Your task to perform on an android device: open chrome and create a bookmark for the current page Image 0: 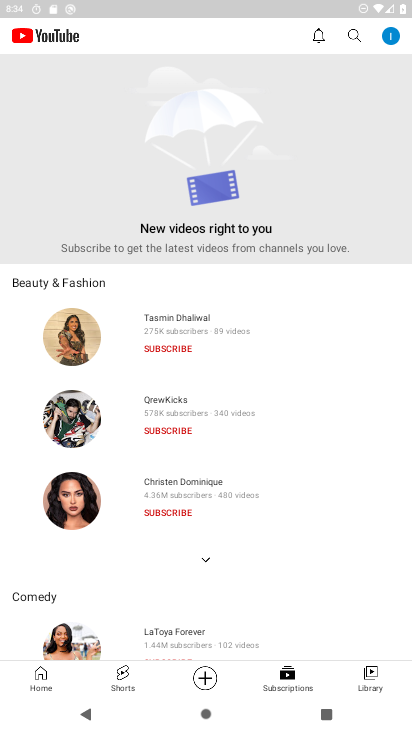
Step 0: press home button
Your task to perform on an android device: open chrome and create a bookmark for the current page Image 1: 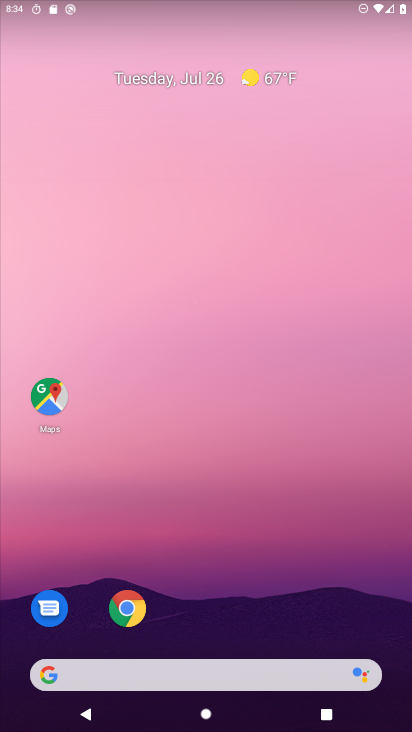
Step 1: click (144, 606)
Your task to perform on an android device: open chrome and create a bookmark for the current page Image 2: 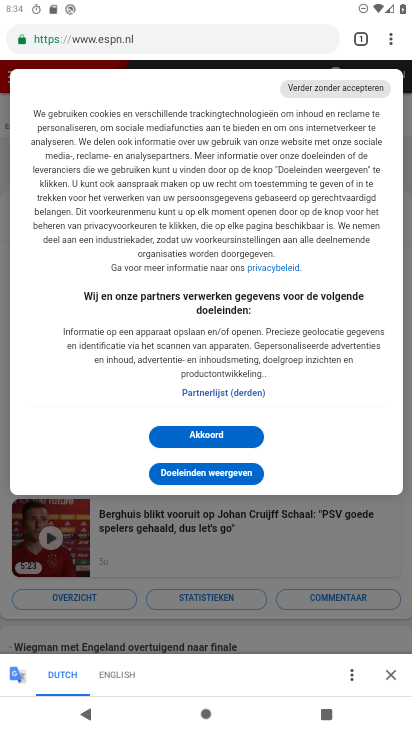
Step 2: click (391, 44)
Your task to perform on an android device: open chrome and create a bookmark for the current page Image 3: 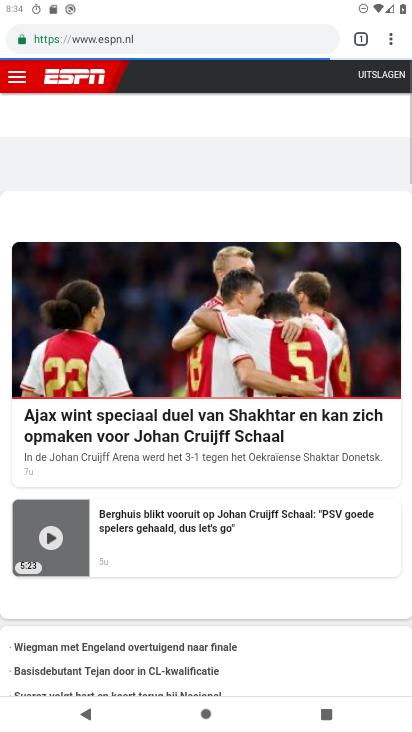
Step 3: click (393, 40)
Your task to perform on an android device: open chrome and create a bookmark for the current page Image 4: 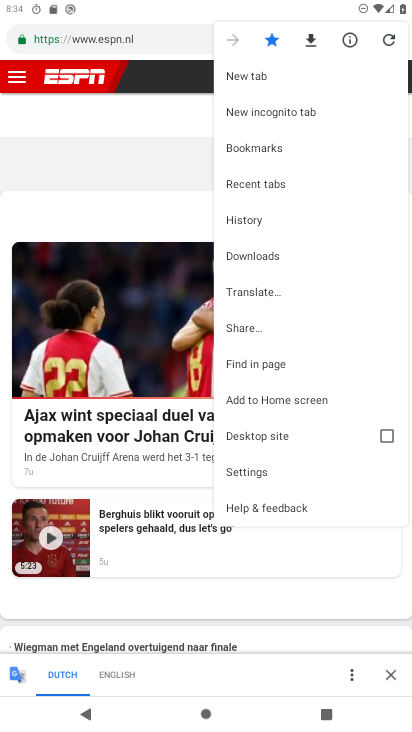
Step 4: task complete